Your task to perform on an android device: Open my contact list Image 0: 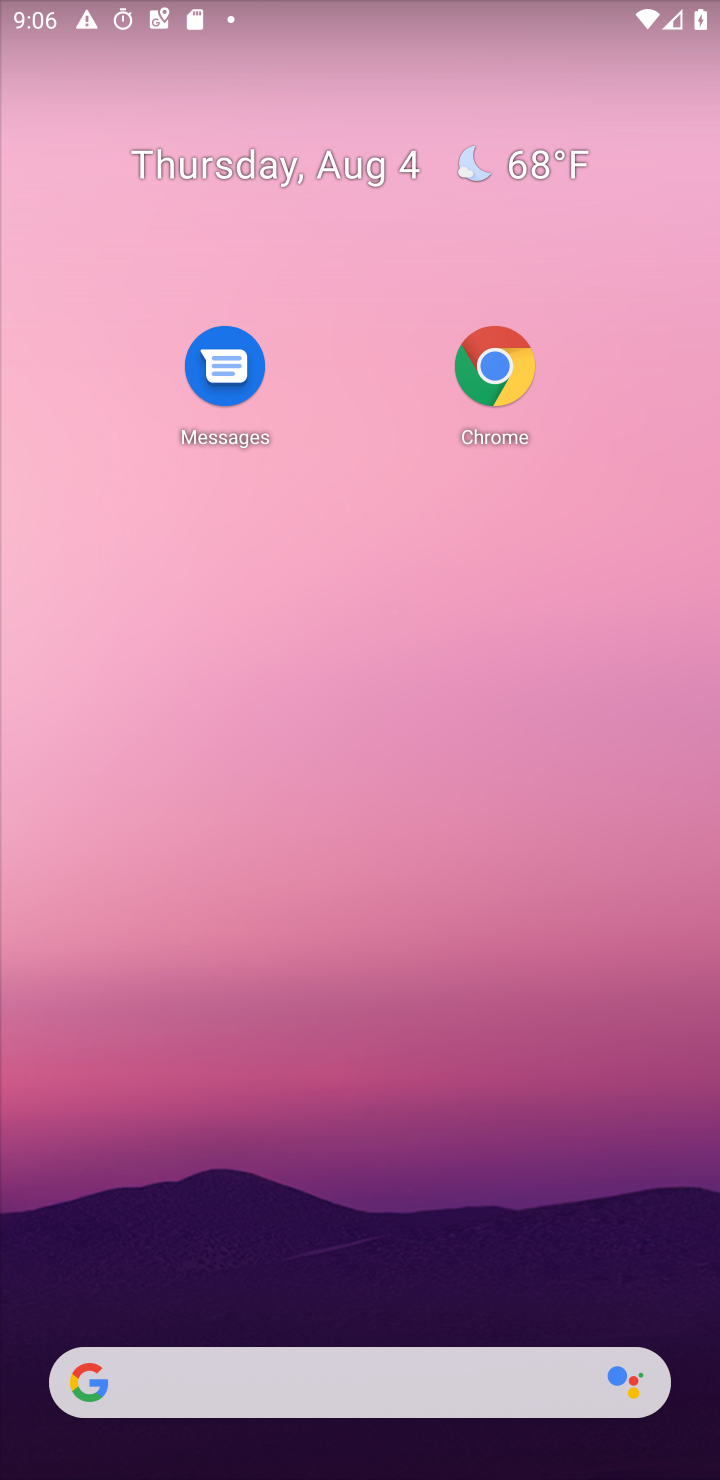
Step 0: press home button
Your task to perform on an android device: Open my contact list Image 1: 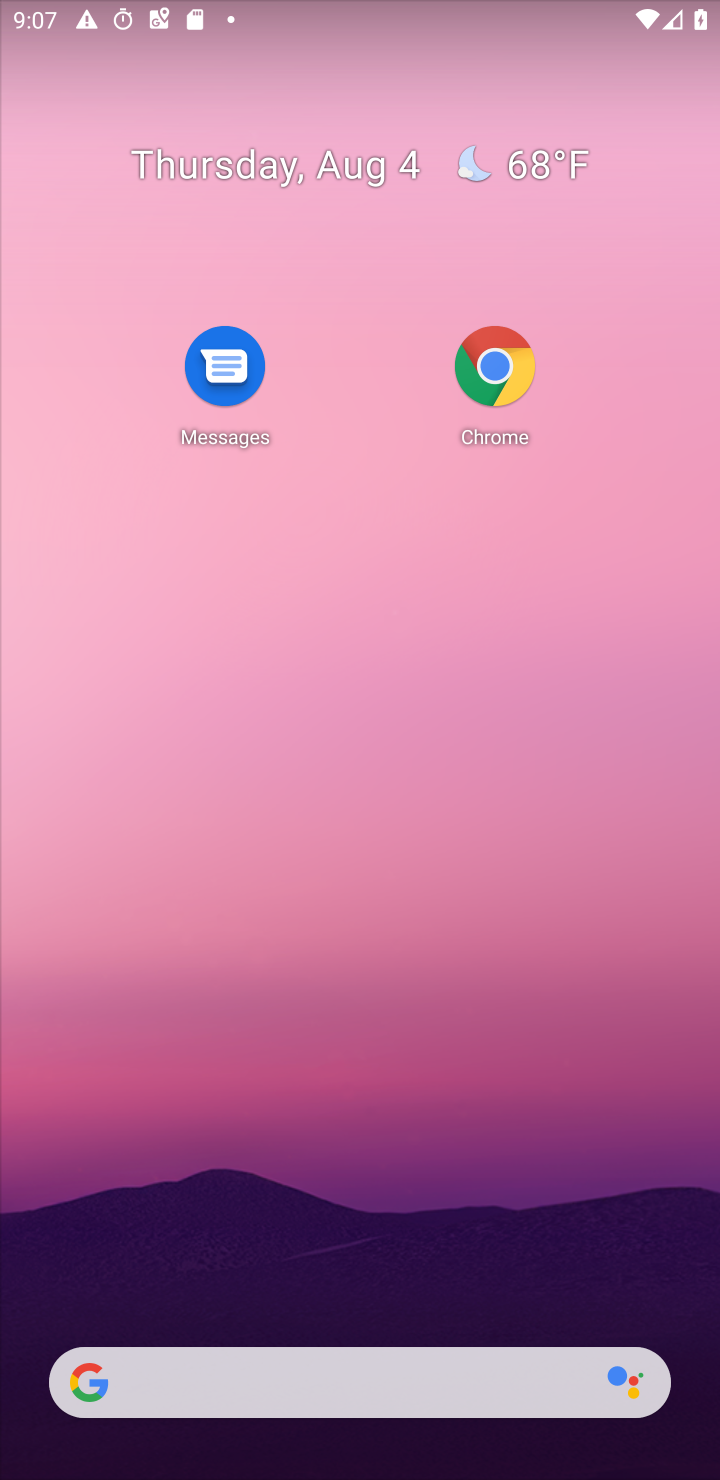
Step 1: drag from (361, 1362) to (318, 392)
Your task to perform on an android device: Open my contact list Image 2: 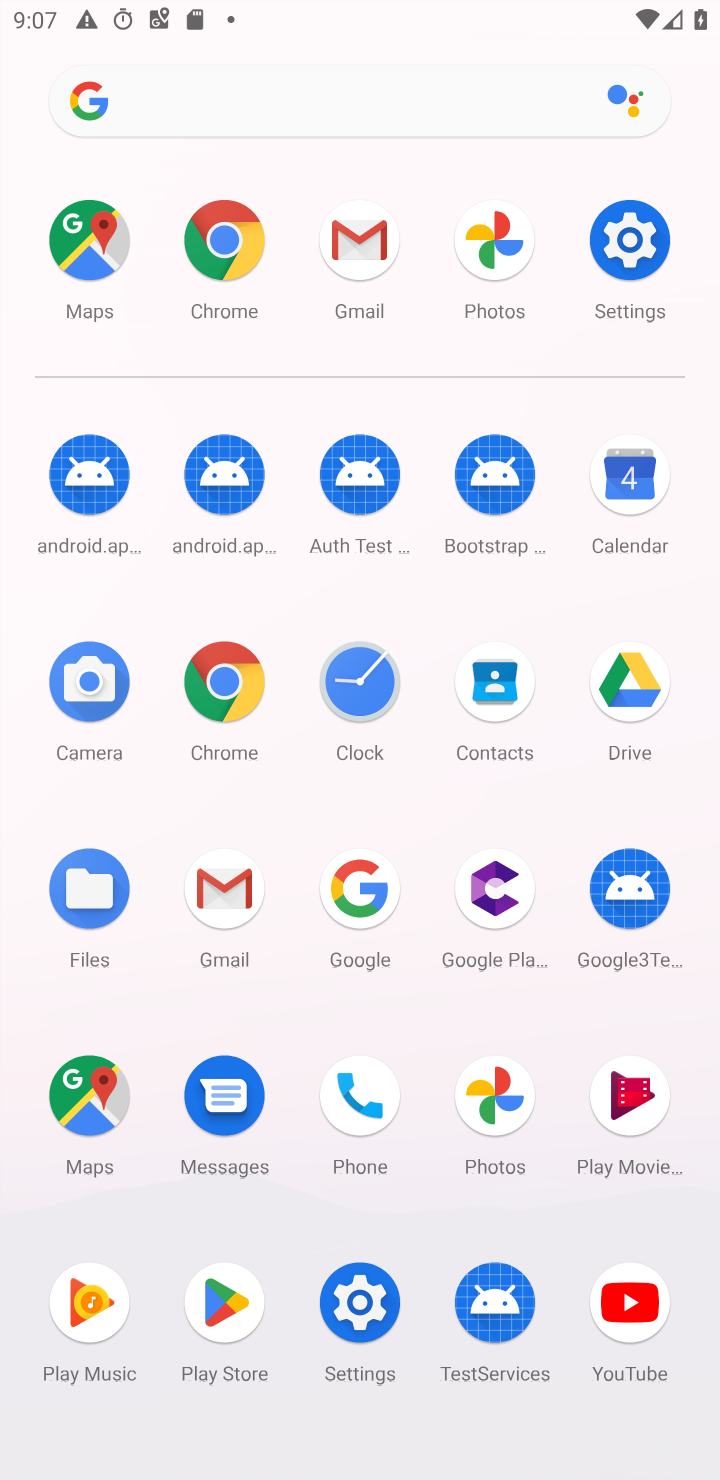
Step 2: click (385, 1090)
Your task to perform on an android device: Open my contact list Image 3: 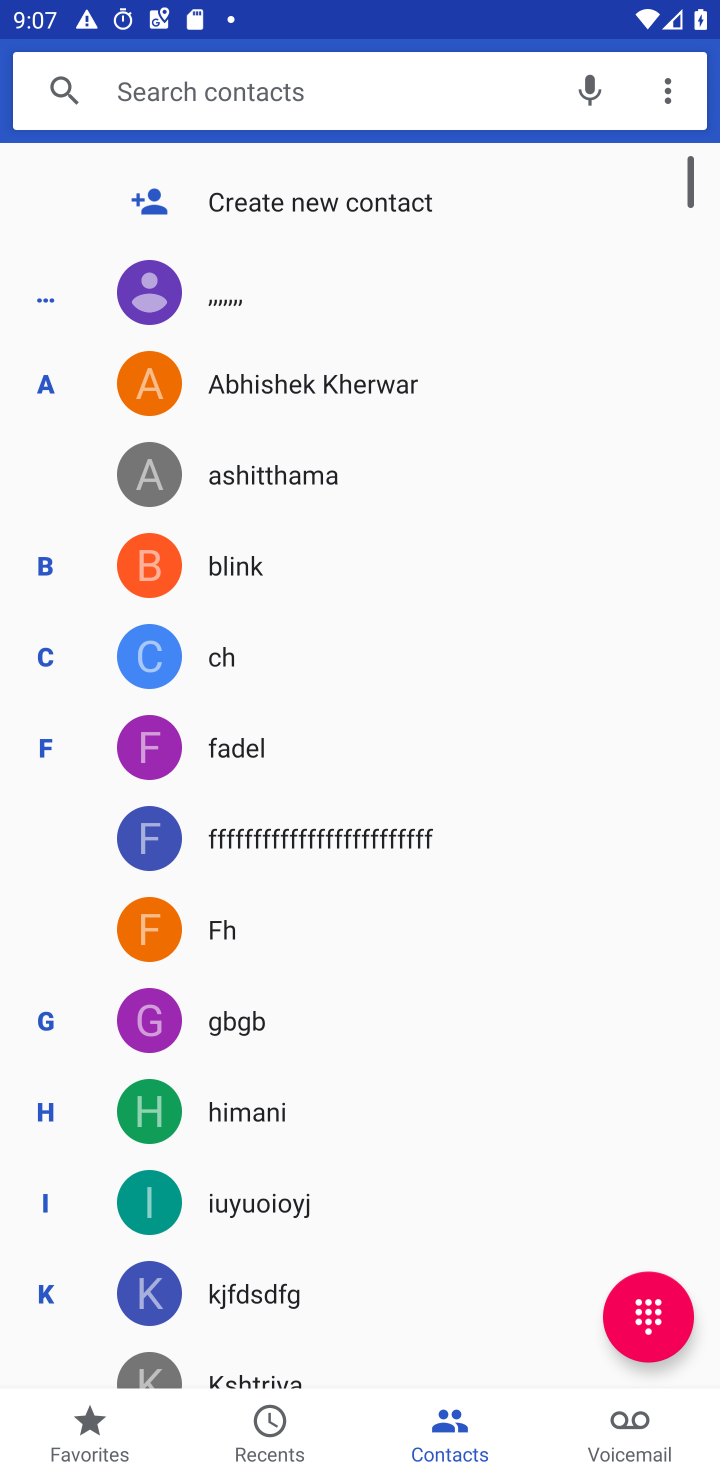
Step 3: click (439, 862)
Your task to perform on an android device: Open my contact list Image 4: 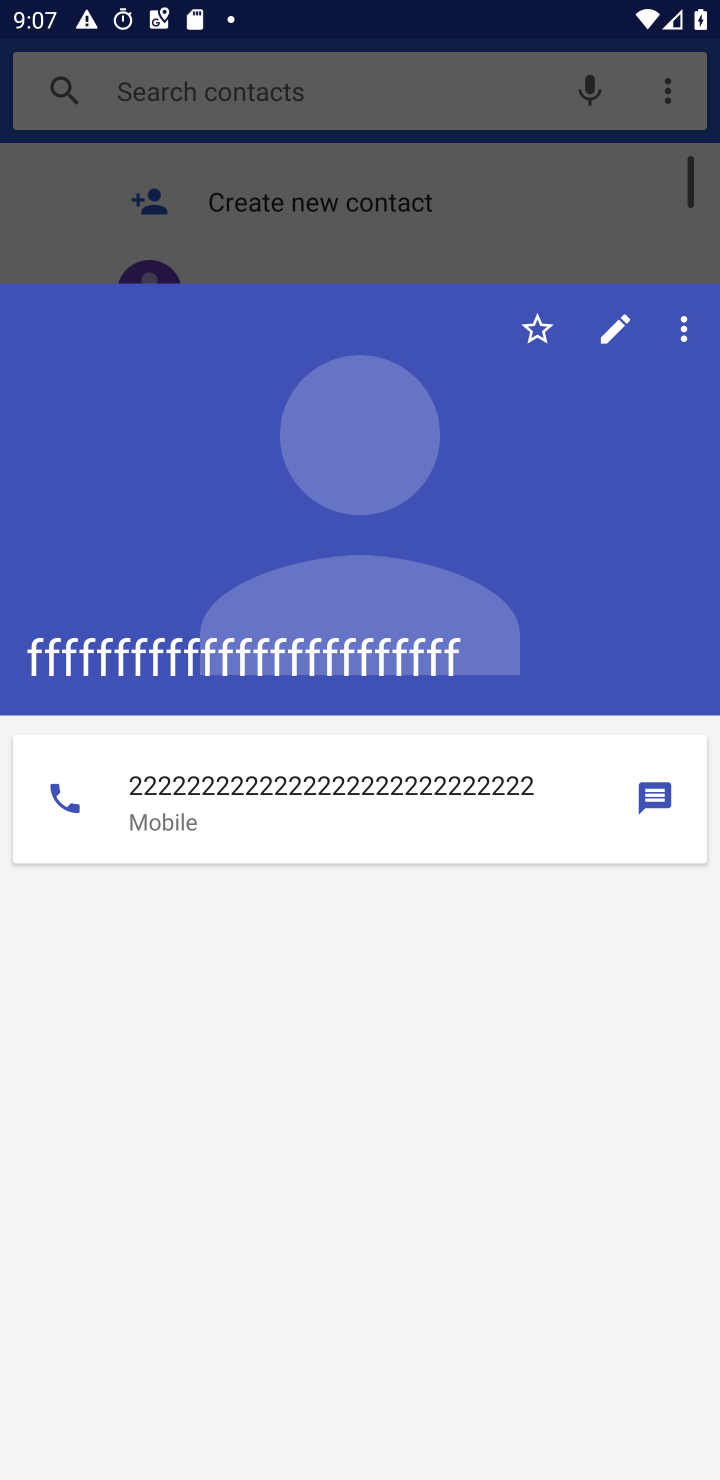
Step 4: task complete